Your task to perform on an android device: allow cookies in the chrome app Image 0: 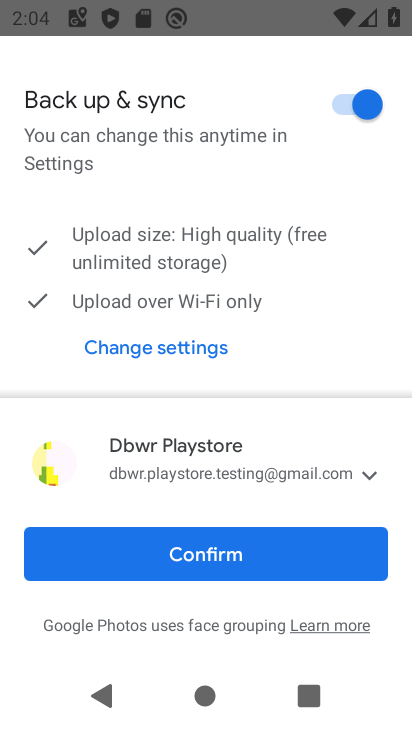
Step 0: press back button
Your task to perform on an android device: allow cookies in the chrome app Image 1: 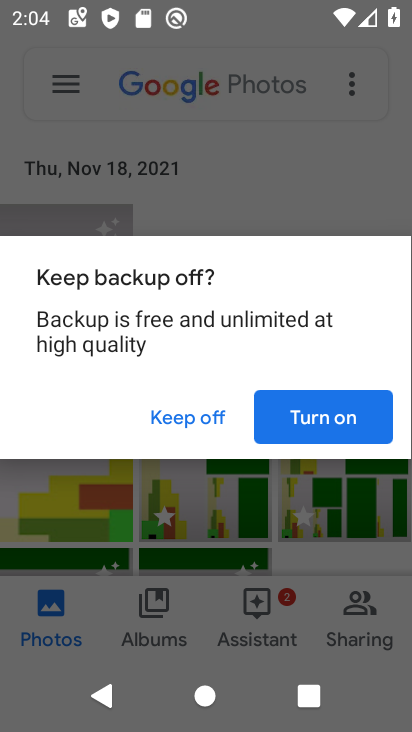
Step 1: press home button
Your task to perform on an android device: allow cookies in the chrome app Image 2: 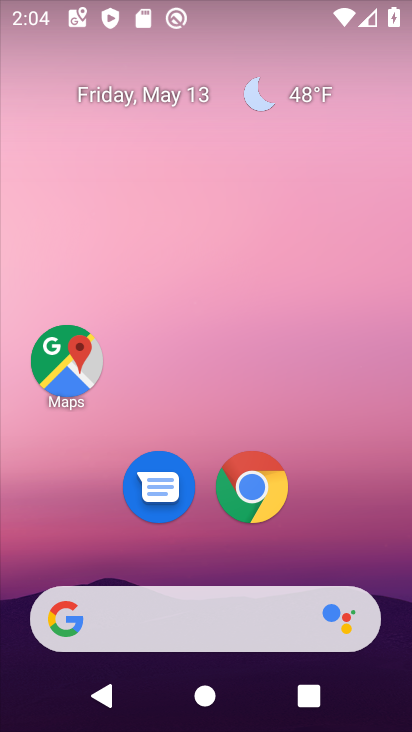
Step 2: click (214, 481)
Your task to perform on an android device: allow cookies in the chrome app Image 3: 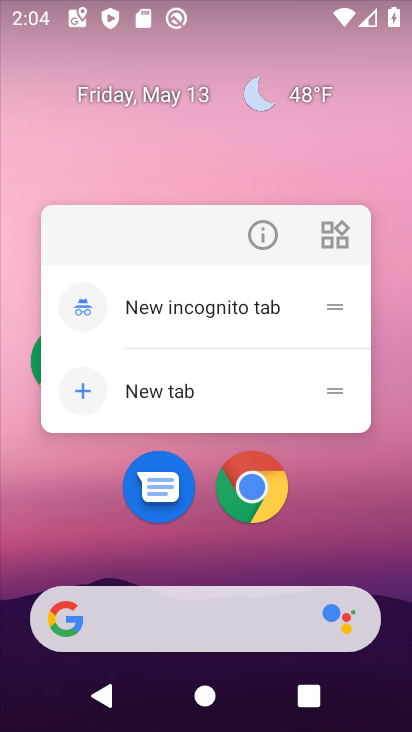
Step 3: click (227, 488)
Your task to perform on an android device: allow cookies in the chrome app Image 4: 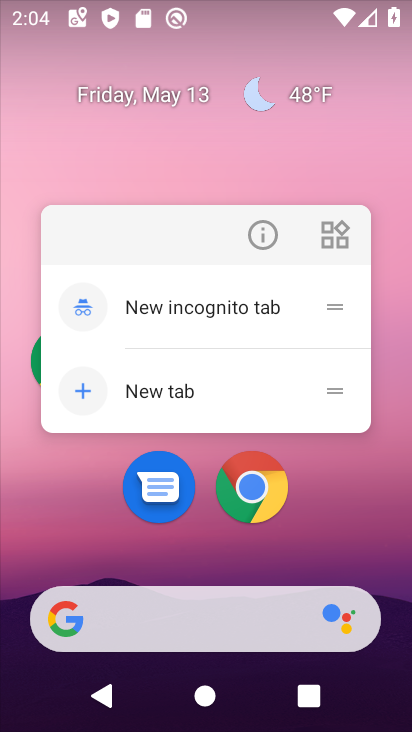
Step 4: click (231, 490)
Your task to perform on an android device: allow cookies in the chrome app Image 5: 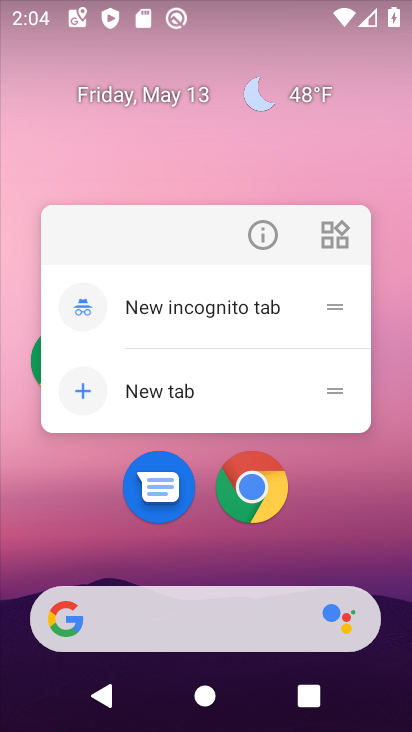
Step 5: click (239, 496)
Your task to perform on an android device: allow cookies in the chrome app Image 6: 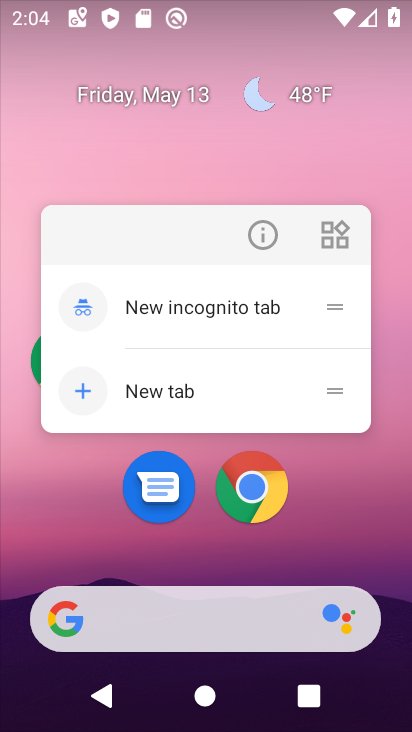
Step 6: click (240, 500)
Your task to perform on an android device: allow cookies in the chrome app Image 7: 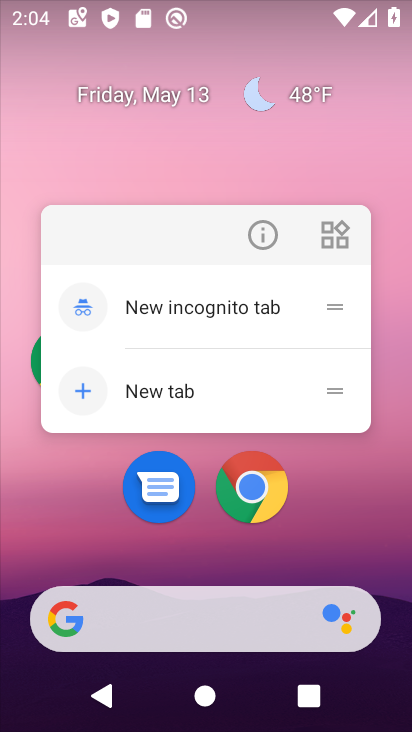
Step 7: click (262, 494)
Your task to perform on an android device: allow cookies in the chrome app Image 8: 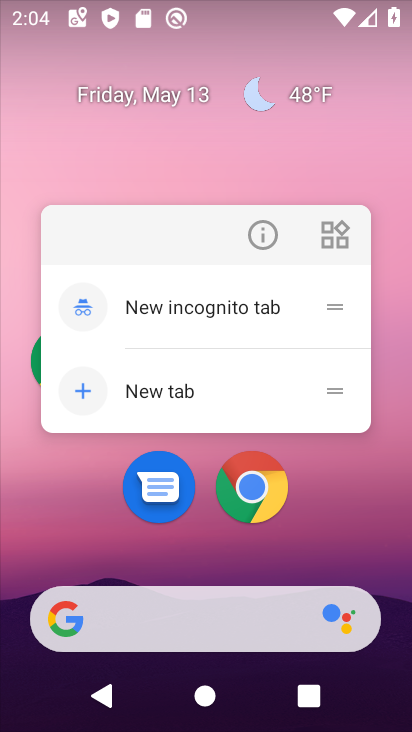
Step 8: click (262, 491)
Your task to perform on an android device: allow cookies in the chrome app Image 9: 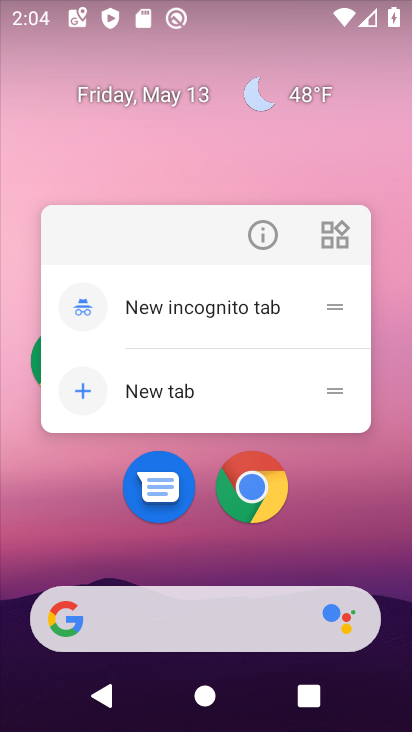
Step 9: click (252, 481)
Your task to perform on an android device: allow cookies in the chrome app Image 10: 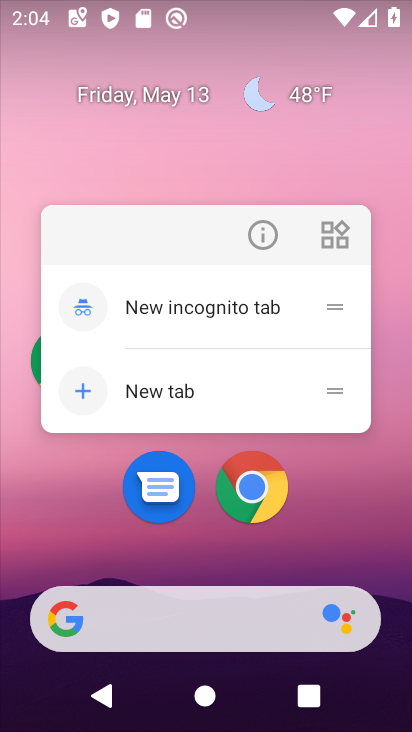
Step 10: click (252, 485)
Your task to perform on an android device: allow cookies in the chrome app Image 11: 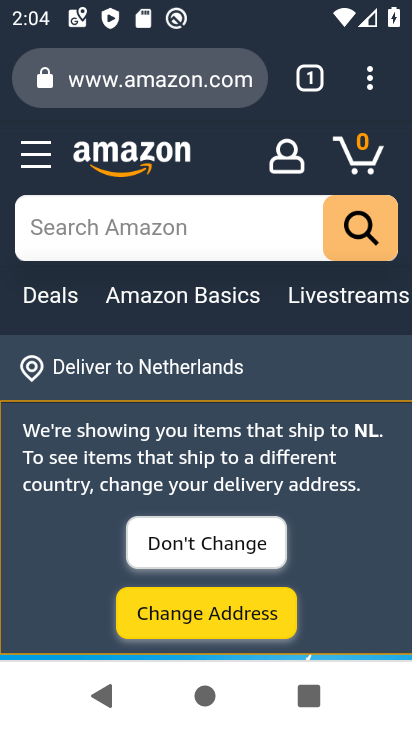
Step 11: drag from (357, 80) to (274, 558)
Your task to perform on an android device: allow cookies in the chrome app Image 12: 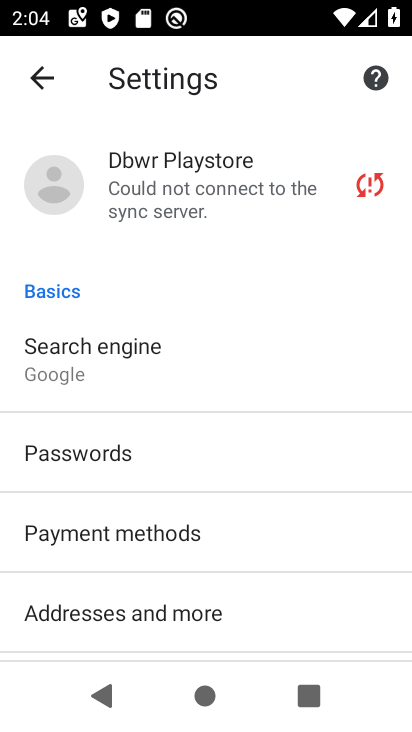
Step 12: drag from (74, 451) to (151, 337)
Your task to perform on an android device: allow cookies in the chrome app Image 13: 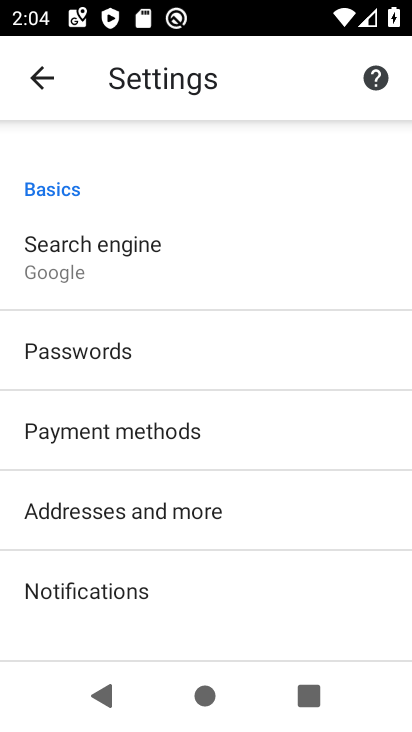
Step 13: drag from (137, 563) to (219, 146)
Your task to perform on an android device: allow cookies in the chrome app Image 14: 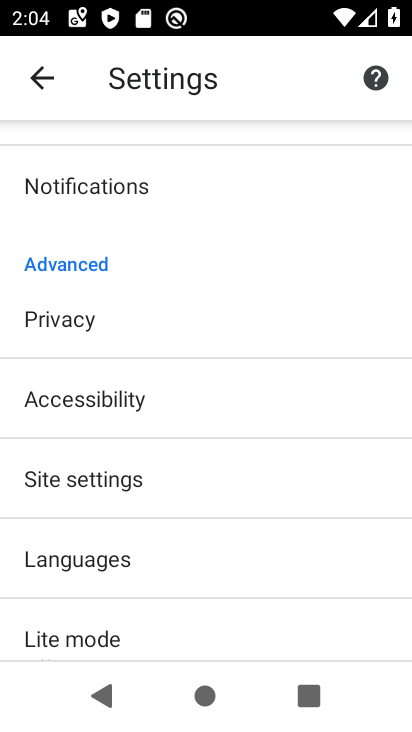
Step 14: click (150, 499)
Your task to perform on an android device: allow cookies in the chrome app Image 15: 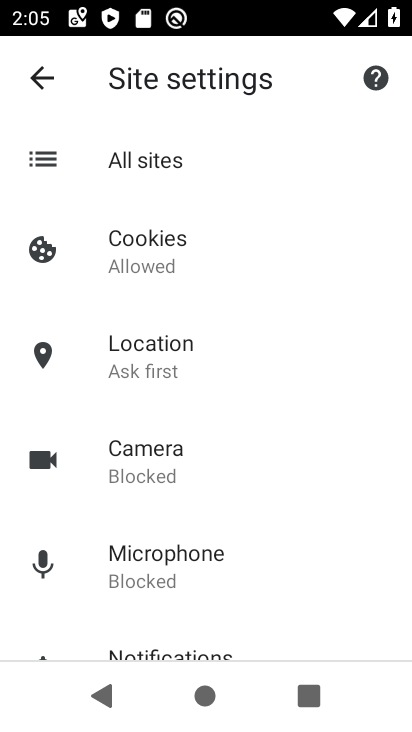
Step 15: click (184, 260)
Your task to perform on an android device: allow cookies in the chrome app Image 16: 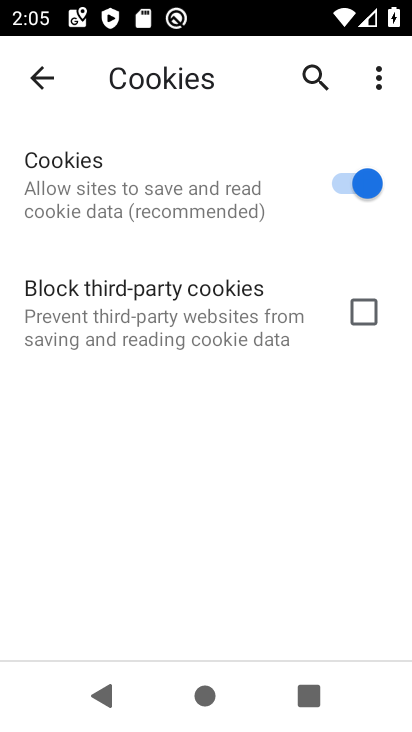
Step 16: task complete